Your task to perform on an android device: Go to Maps Image 0: 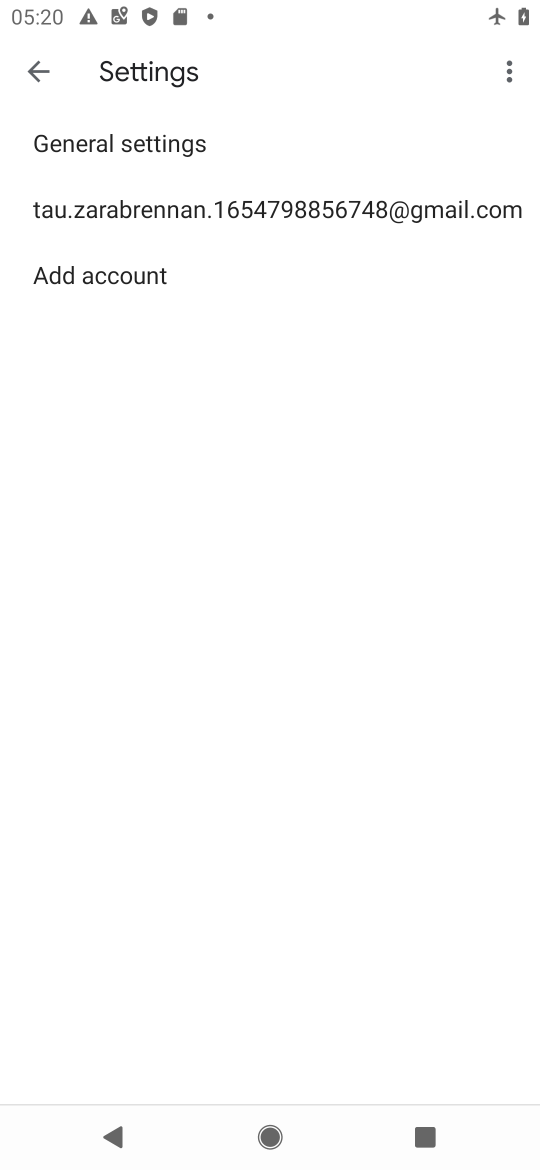
Step 0: click (19, 71)
Your task to perform on an android device: Go to Maps Image 1: 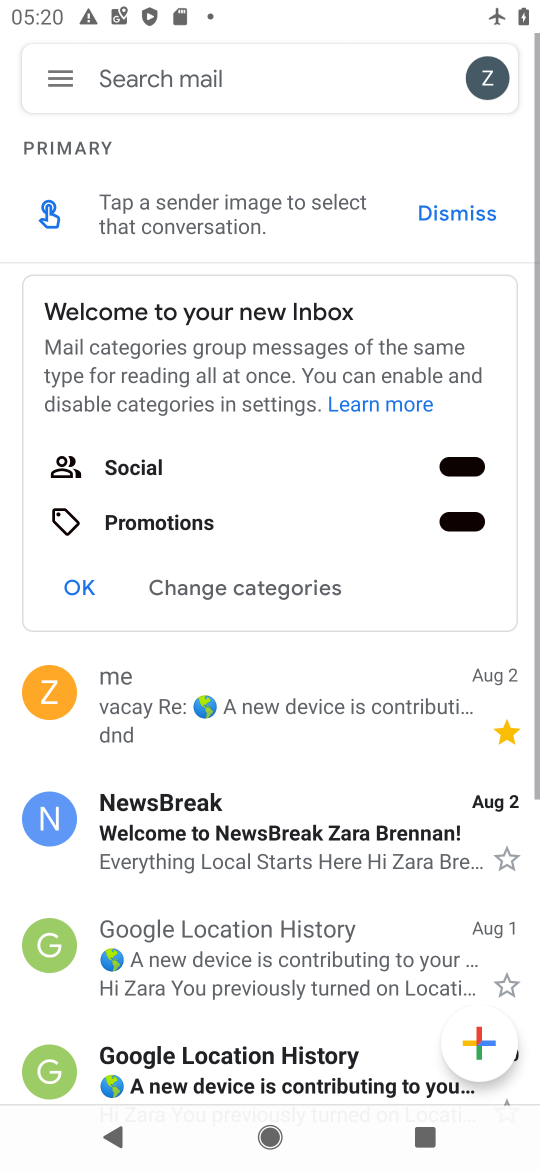
Step 1: press home button
Your task to perform on an android device: Go to Maps Image 2: 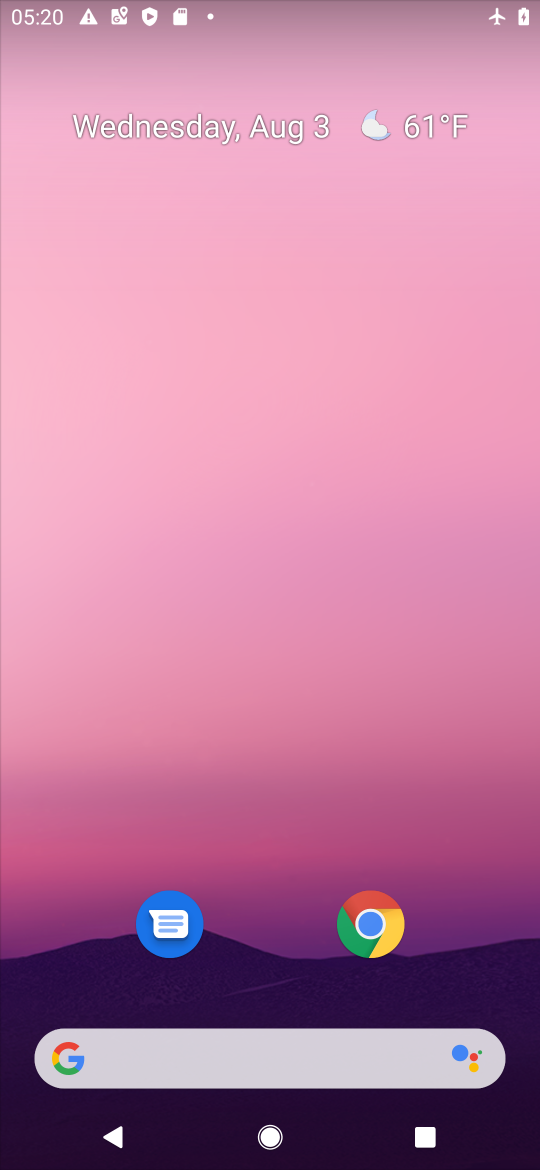
Step 2: drag from (277, 862) to (280, 338)
Your task to perform on an android device: Go to Maps Image 3: 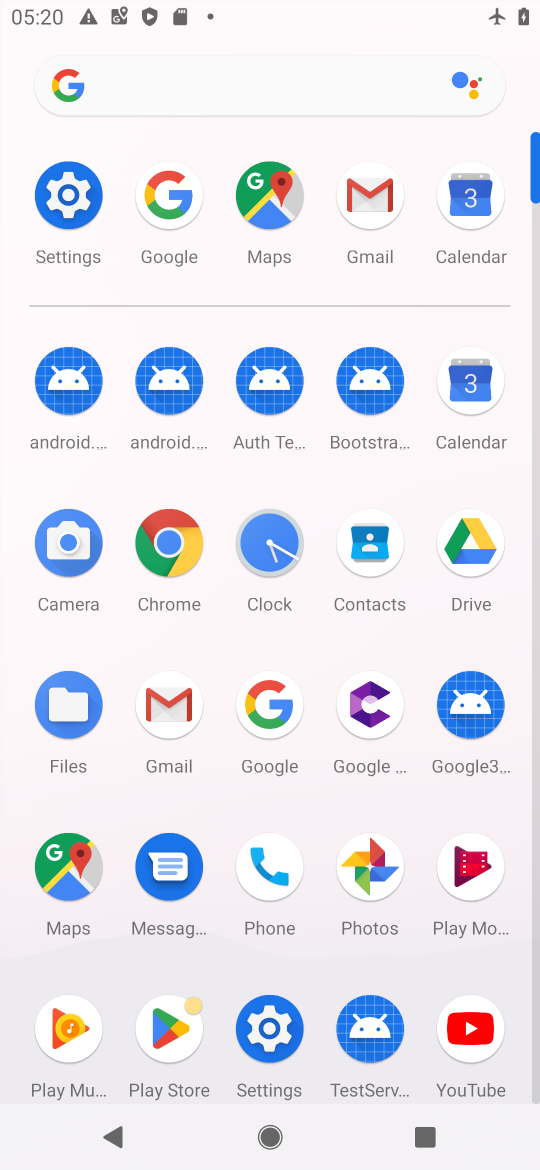
Step 3: click (262, 217)
Your task to perform on an android device: Go to Maps Image 4: 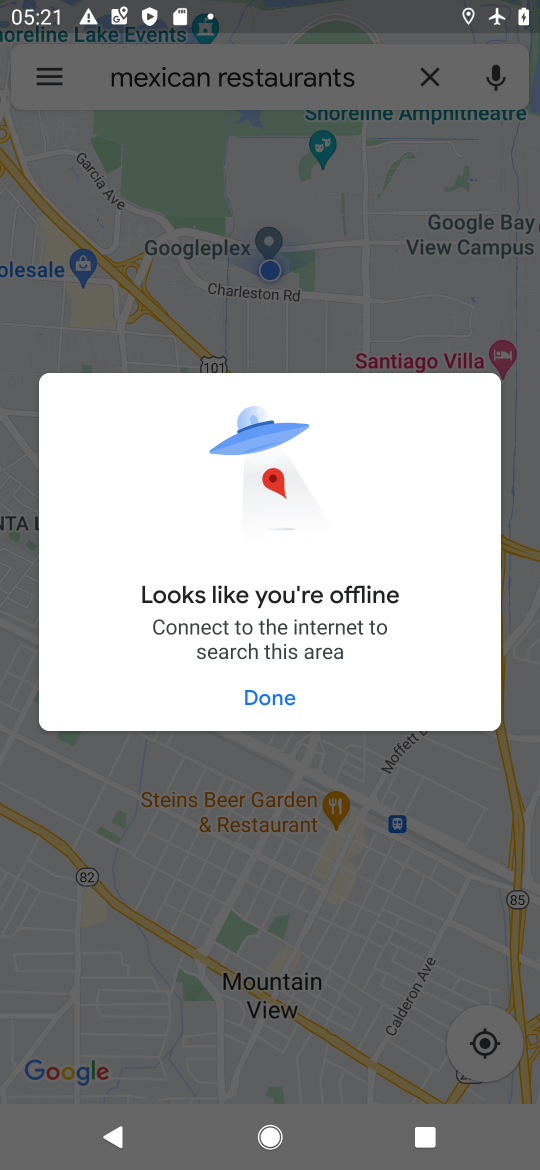
Step 4: task complete